Your task to perform on an android device: Go to Google Image 0: 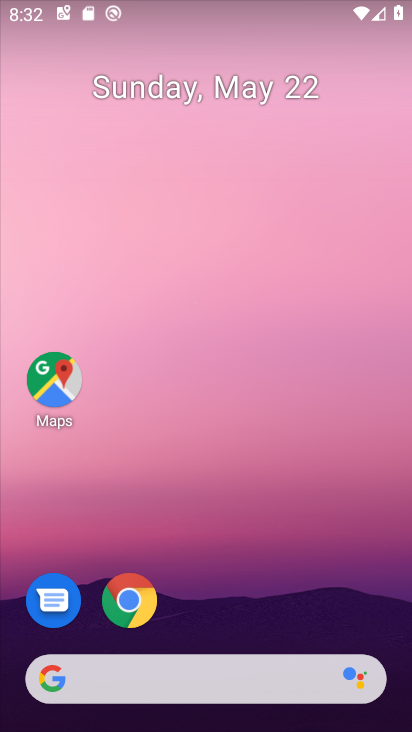
Step 0: drag from (225, 653) to (246, 402)
Your task to perform on an android device: Go to Google Image 1: 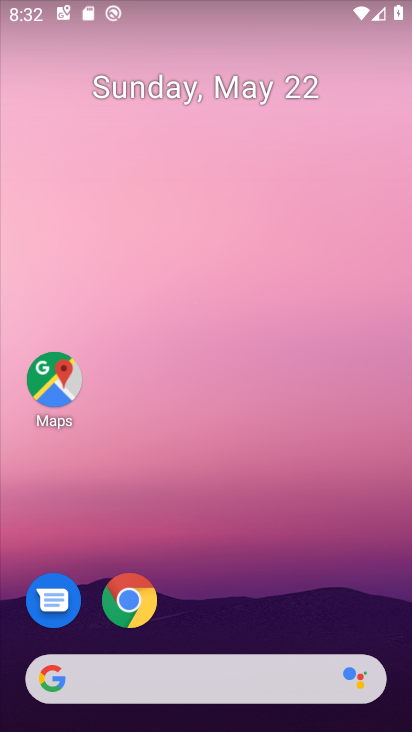
Step 1: drag from (173, 647) to (185, 295)
Your task to perform on an android device: Go to Google Image 2: 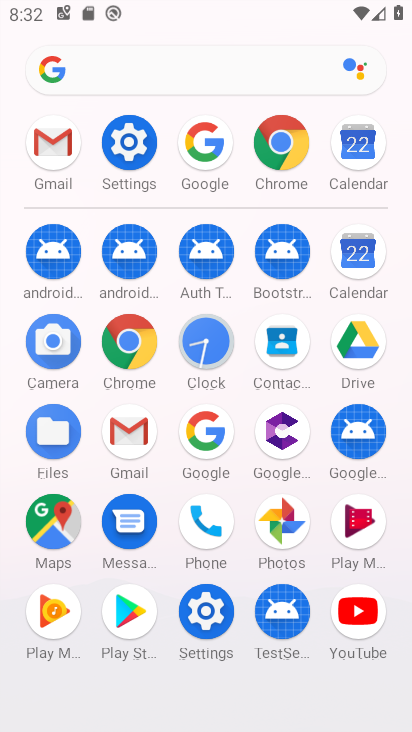
Step 2: click (198, 132)
Your task to perform on an android device: Go to Google Image 3: 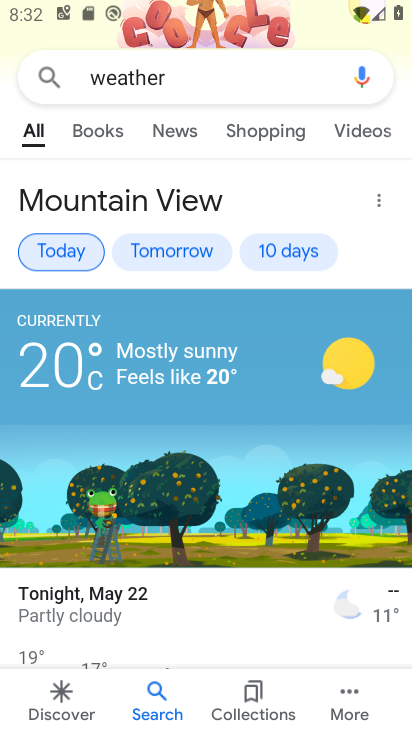
Step 3: click (188, 74)
Your task to perform on an android device: Go to Google Image 4: 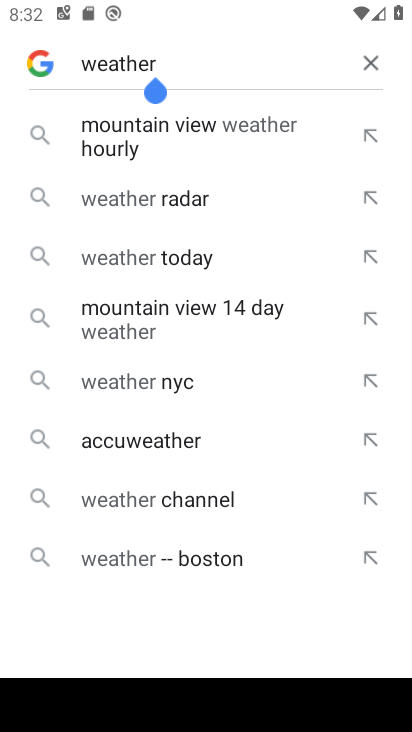
Step 4: click (361, 66)
Your task to perform on an android device: Go to Google Image 5: 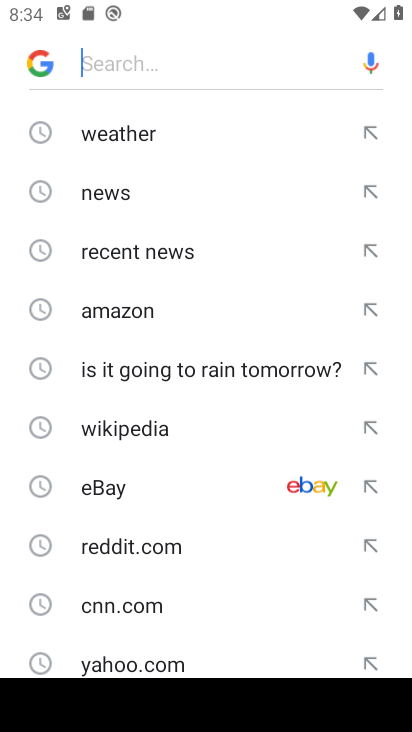
Step 5: task complete